Your task to perform on an android device: turn on the 24-hour format for clock Image 0: 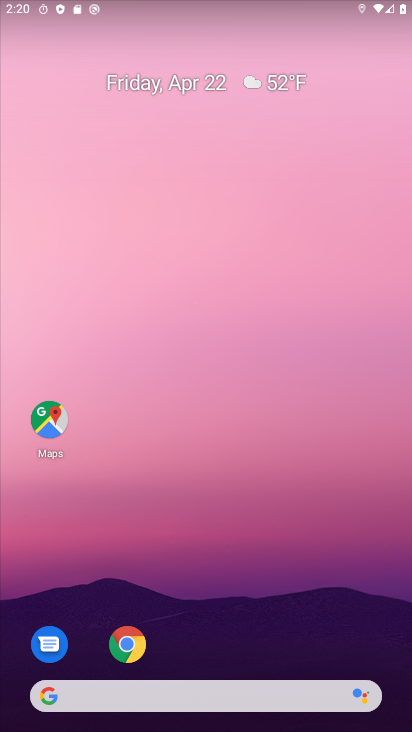
Step 0: drag from (298, 602) to (223, 178)
Your task to perform on an android device: turn on the 24-hour format for clock Image 1: 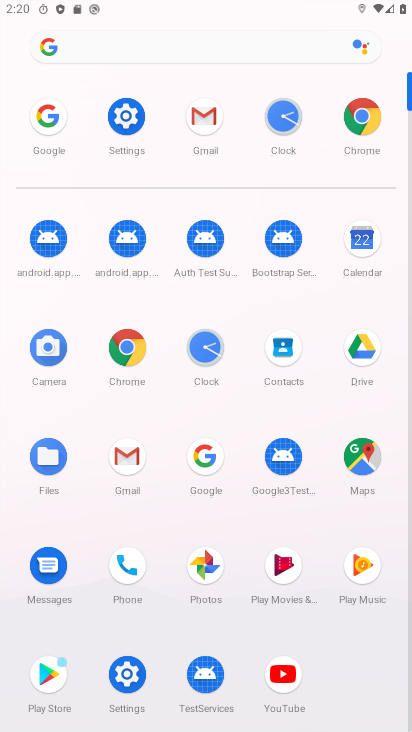
Step 1: click (219, 351)
Your task to perform on an android device: turn on the 24-hour format for clock Image 2: 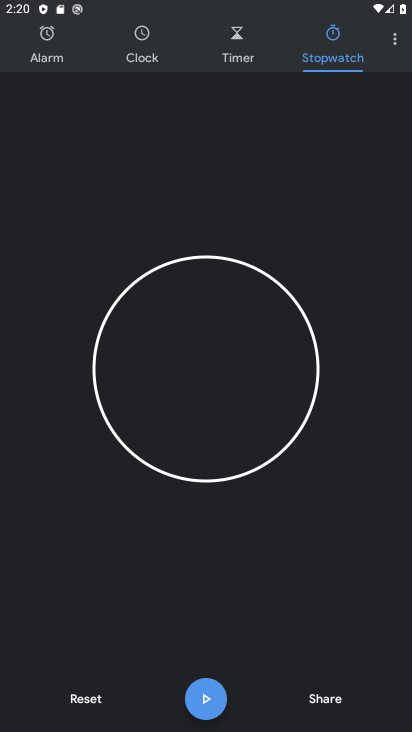
Step 2: click (399, 43)
Your task to perform on an android device: turn on the 24-hour format for clock Image 3: 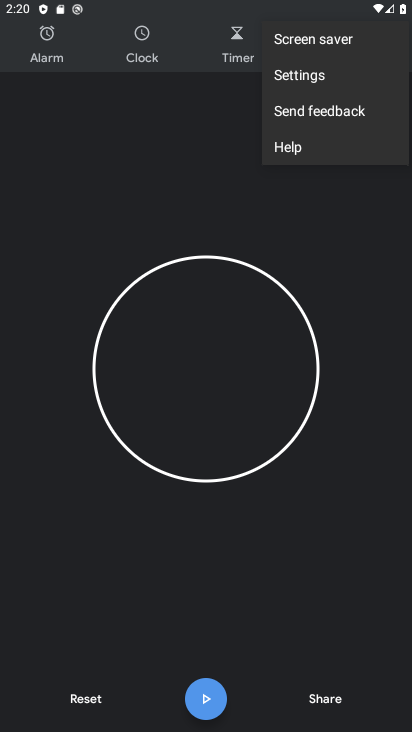
Step 3: click (312, 77)
Your task to perform on an android device: turn on the 24-hour format for clock Image 4: 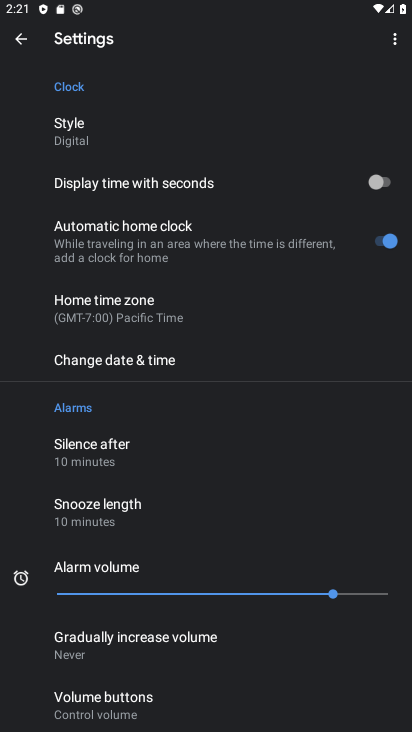
Step 4: click (153, 362)
Your task to perform on an android device: turn on the 24-hour format for clock Image 5: 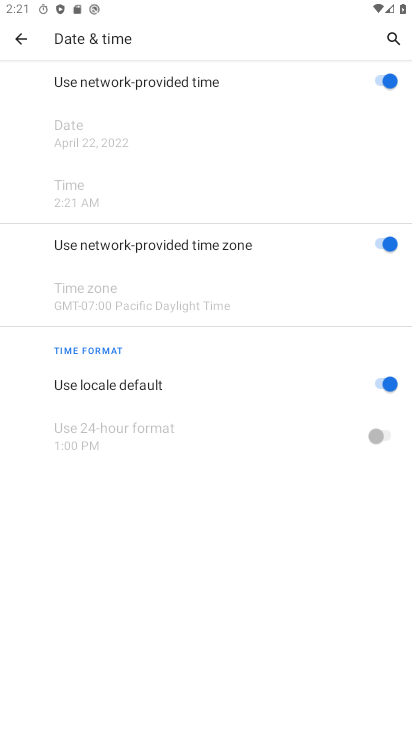
Step 5: click (383, 385)
Your task to perform on an android device: turn on the 24-hour format for clock Image 6: 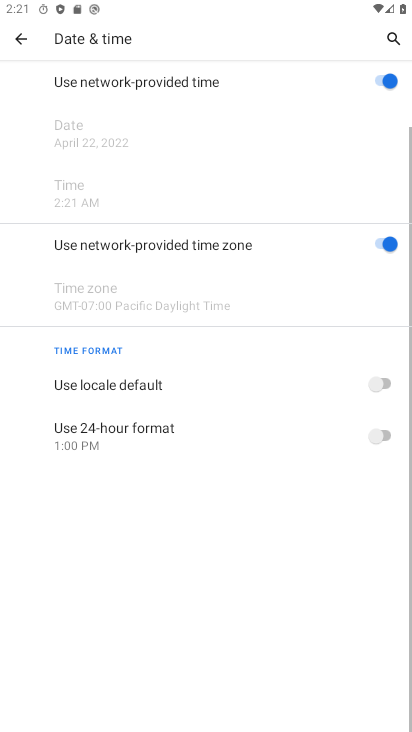
Step 6: click (386, 433)
Your task to perform on an android device: turn on the 24-hour format for clock Image 7: 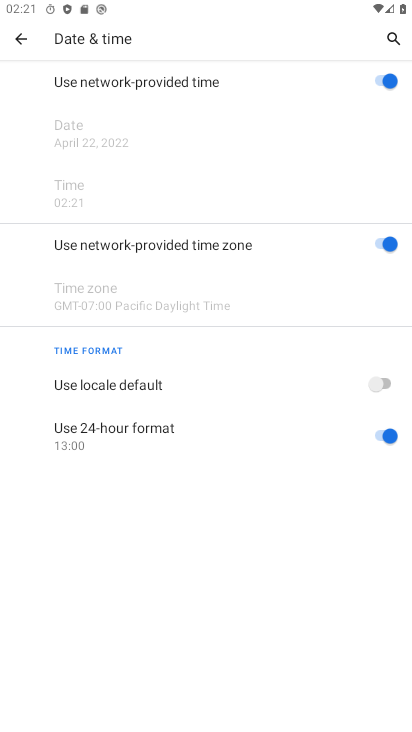
Step 7: task complete